Your task to perform on an android device: check google app version Image 0: 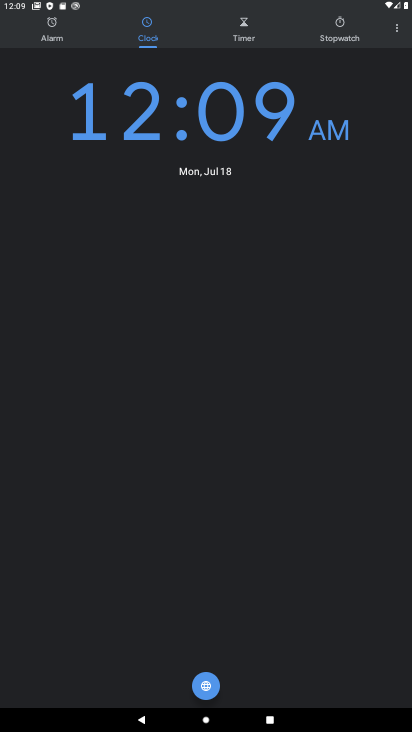
Step 0: press home button
Your task to perform on an android device: check google app version Image 1: 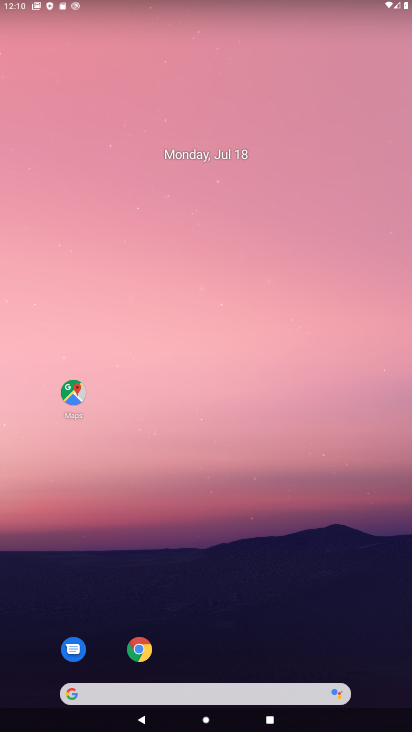
Step 1: click (138, 646)
Your task to perform on an android device: check google app version Image 2: 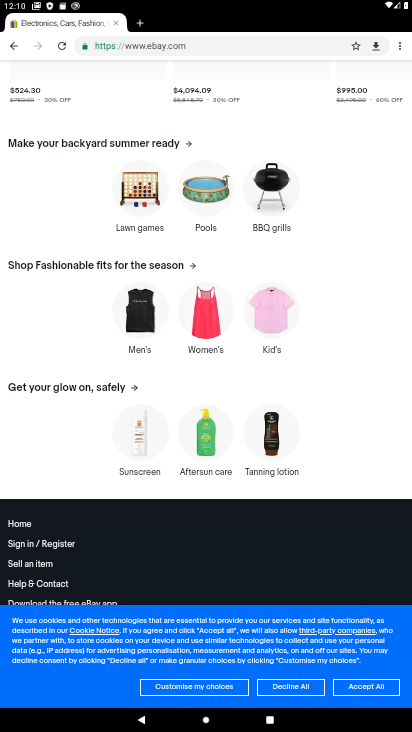
Step 2: click (399, 52)
Your task to perform on an android device: check google app version Image 3: 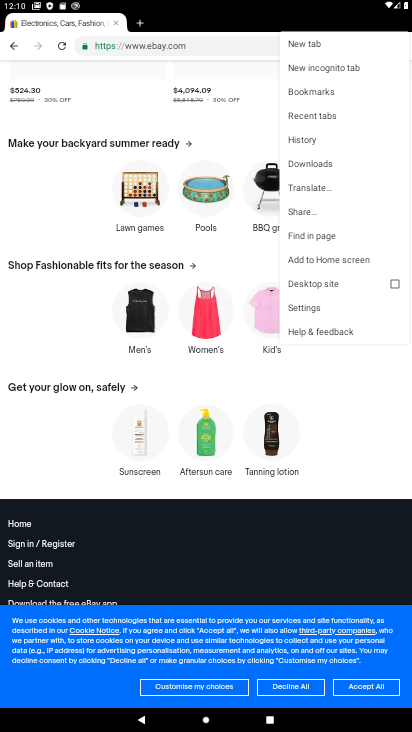
Step 3: click (305, 306)
Your task to perform on an android device: check google app version Image 4: 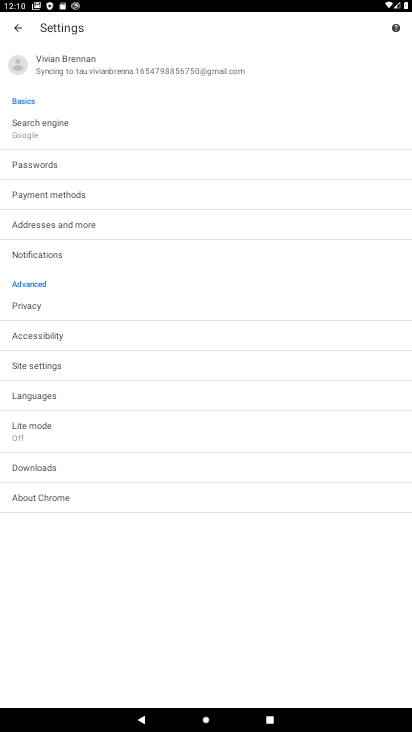
Step 4: click (53, 491)
Your task to perform on an android device: check google app version Image 5: 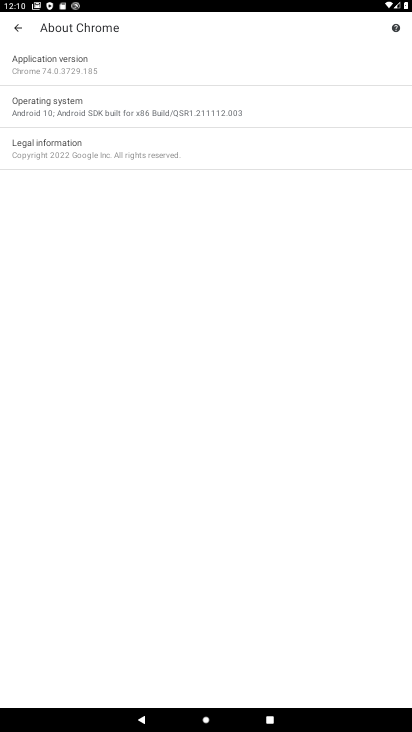
Step 5: click (65, 74)
Your task to perform on an android device: check google app version Image 6: 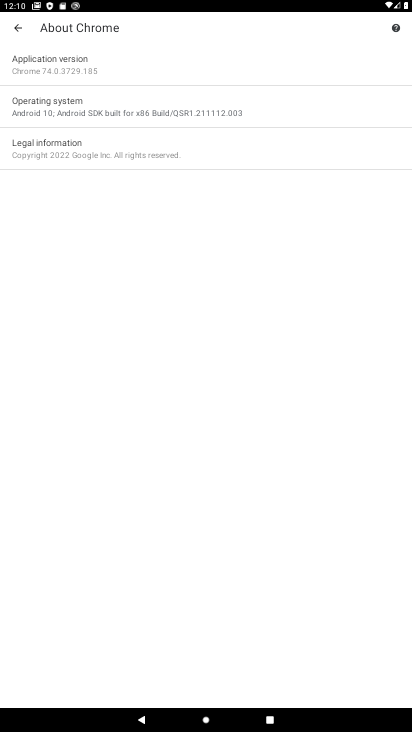
Step 6: task complete